Your task to perform on an android device: Go to display settings Image 0: 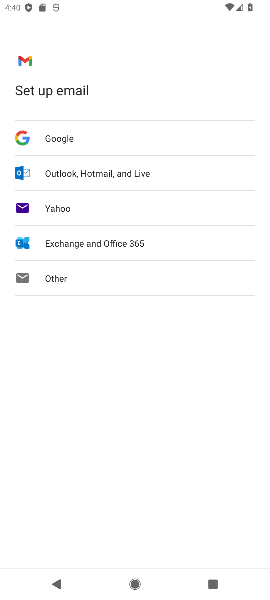
Step 0: press home button
Your task to perform on an android device: Go to display settings Image 1: 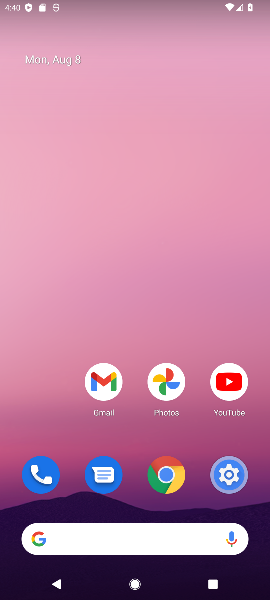
Step 1: drag from (66, 449) to (80, 197)
Your task to perform on an android device: Go to display settings Image 2: 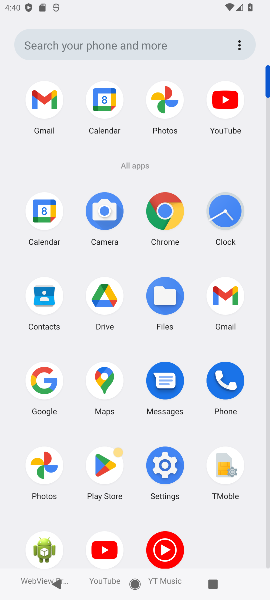
Step 2: click (162, 464)
Your task to perform on an android device: Go to display settings Image 3: 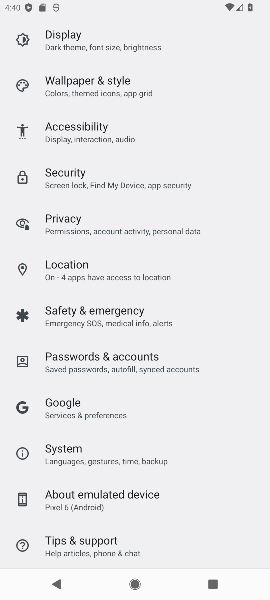
Step 3: drag from (223, 457) to (228, 387)
Your task to perform on an android device: Go to display settings Image 4: 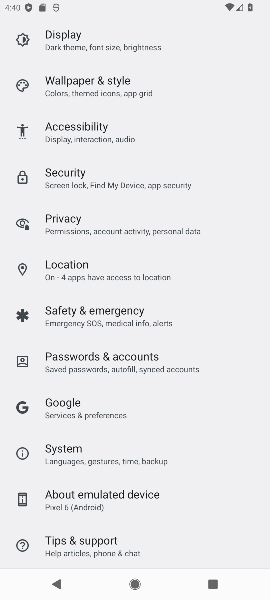
Step 4: drag from (225, 302) to (226, 345)
Your task to perform on an android device: Go to display settings Image 5: 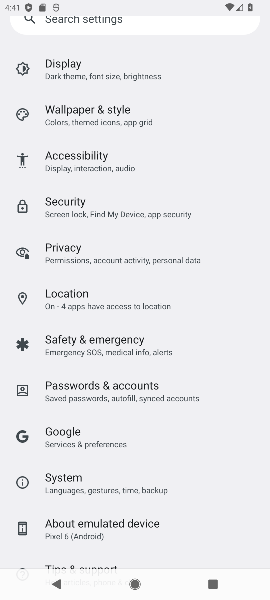
Step 5: drag from (223, 239) to (224, 298)
Your task to perform on an android device: Go to display settings Image 6: 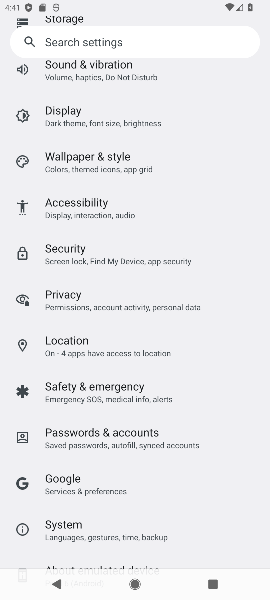
Step 6: drag from (228, 225) to (231, 286)
Your task to perform on an android device: Go to display settings Image 7: 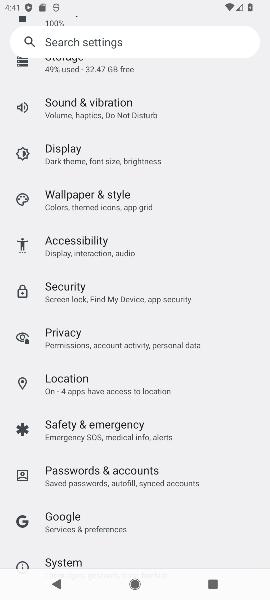
Step 7: drag from (230, 215) to (239, 273)
Your task to perform on an android device: Go to display settings Image 8: 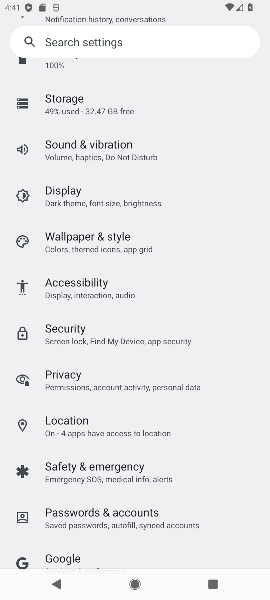
Step 8: drag from (230, 226) to (236, 292)
Your task to perform on an android device: Go to display settings Image 9: 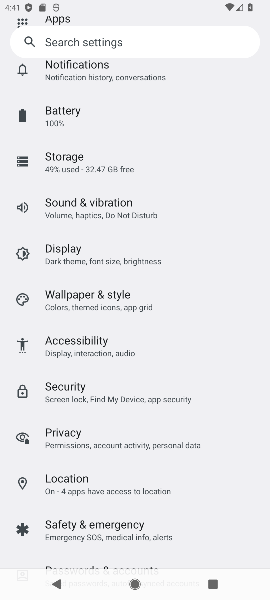
Step 9: drag from (213, 185) to (215, 277)
Your task to perform on an android device: Go to display settings Image 10: 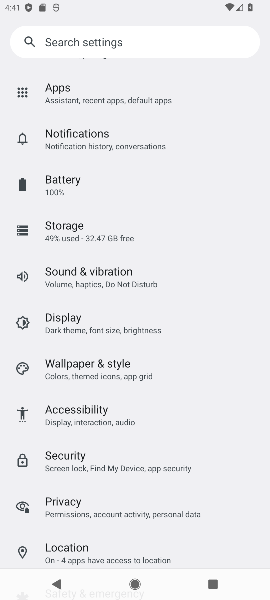
Step 10: drag from (199, 183) to (206, 329)
Your task to perform on an android device: Go to display settings Image 11: 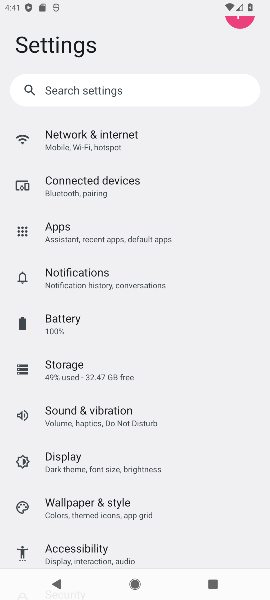
Step 11: click (140, 463)
Your task to perform on an android device: Go to display settings Image 12: 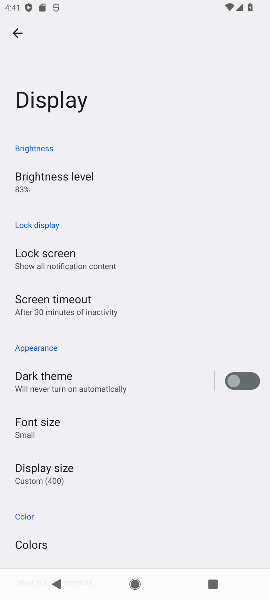
Step 12: task complete